Your task to perform on an android device: change notifications settings Image 0: 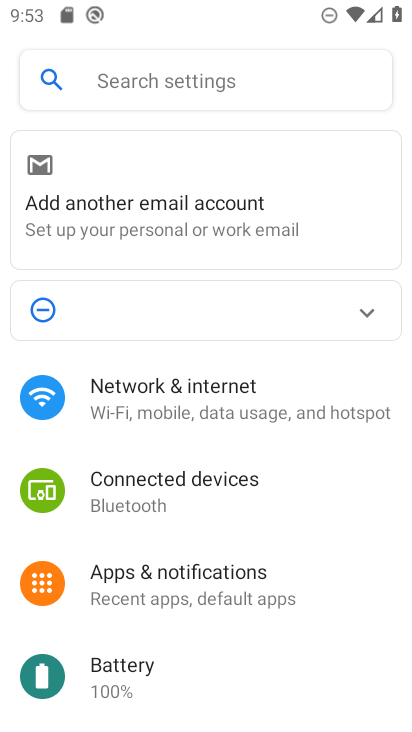
Step 0: click (202, 569)
Your task to perform on an android device: change notifications settings Image 1: 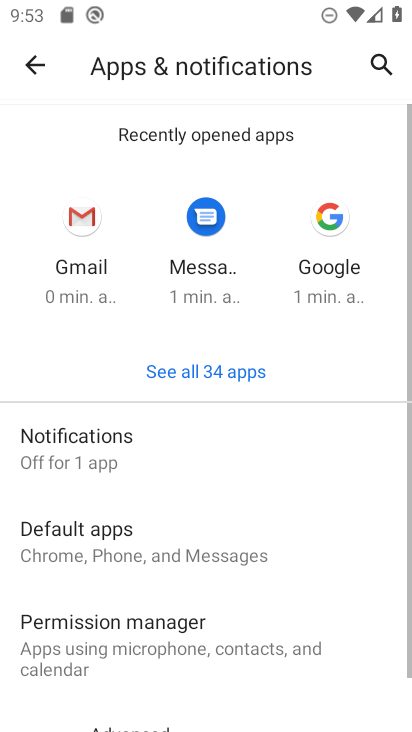
Step 1: click (146, 462)
Your task to perform on an android device: change notifications settings Image 2: 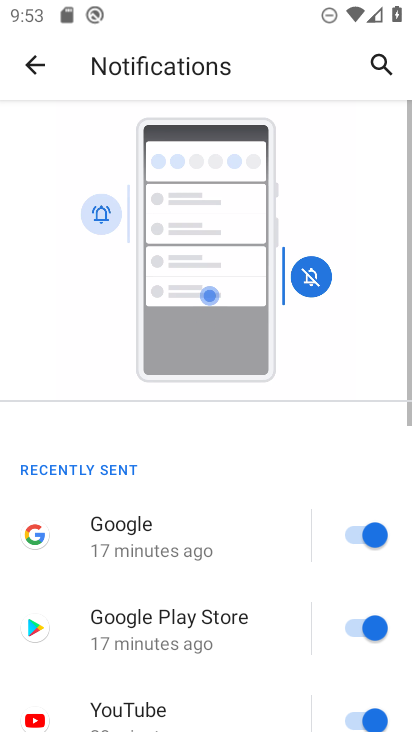
Step 2: drag from (214, 579) to (190, 7)
Your task to perform on an android device: change notifications settings Image 3: 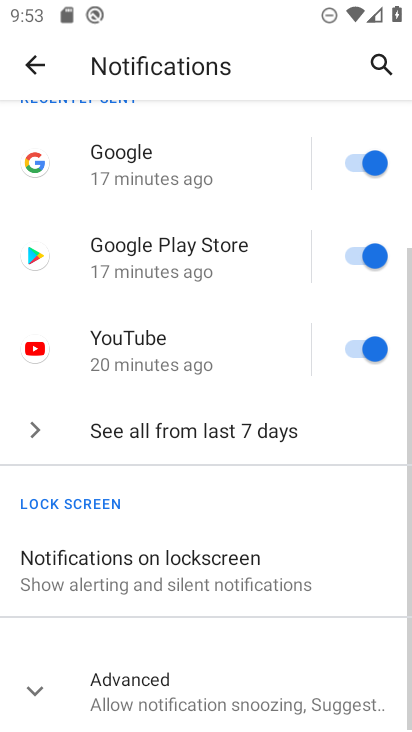
Step 3: click (166, 431)
Your task to perform on an android device: change notifications settings Image 4: 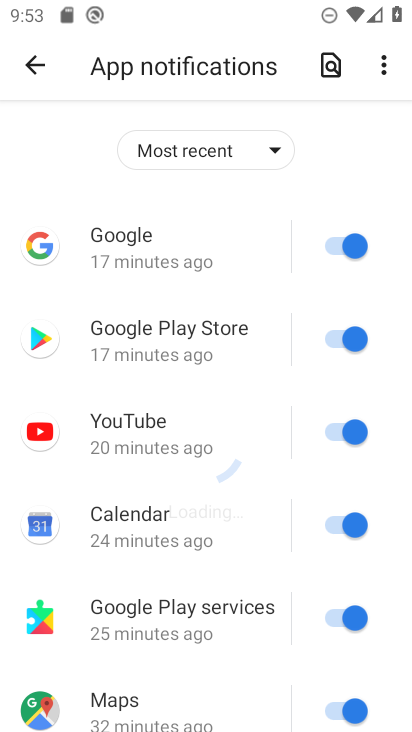
Step 4: click (187, 123)
Your task to perform on an android device: change notifications settings Image 5: 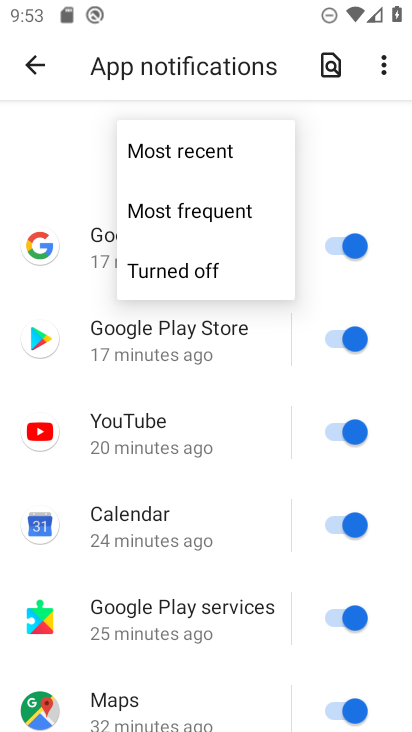
Step 5: click (191, 278)
Your task to perform on an android device: change notifications settings Image 6: 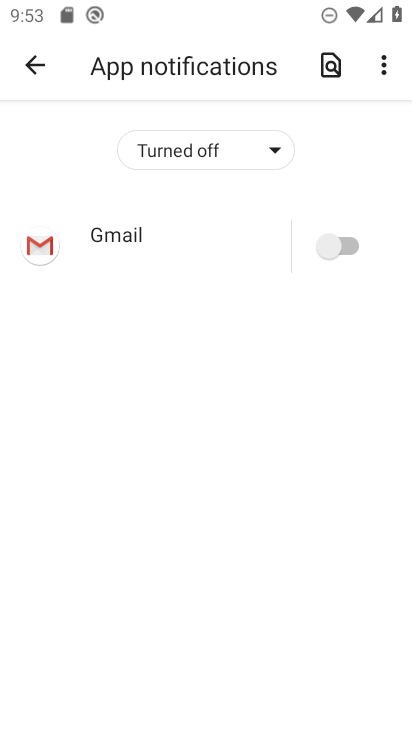
Step 6: task complete